Your task to perform on an android device: turn on javascript in the chrome app Image 0: 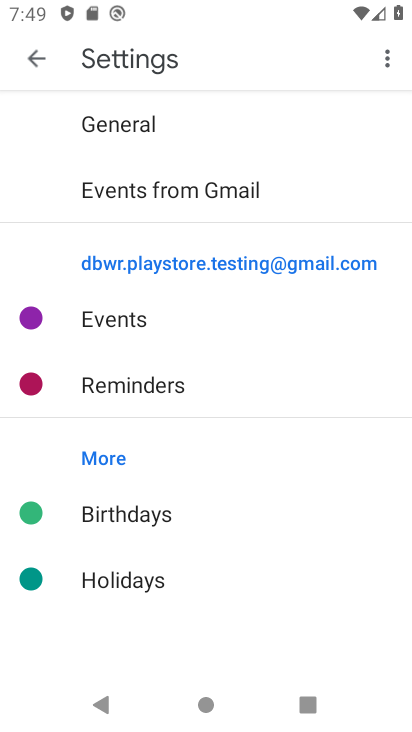
Step 0: press home button
Your task to perform on an android device: turn on javascript in the chrome app Image 1: 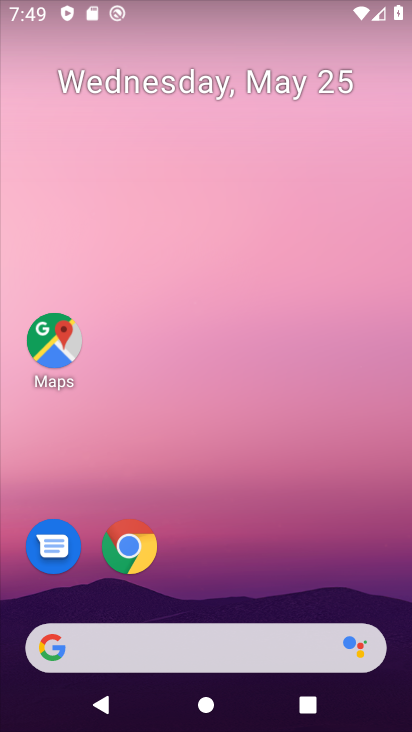
Step 1: click (128, 550)
Your task to perform on an android device: turn on javascript in the chrome app Image 2: 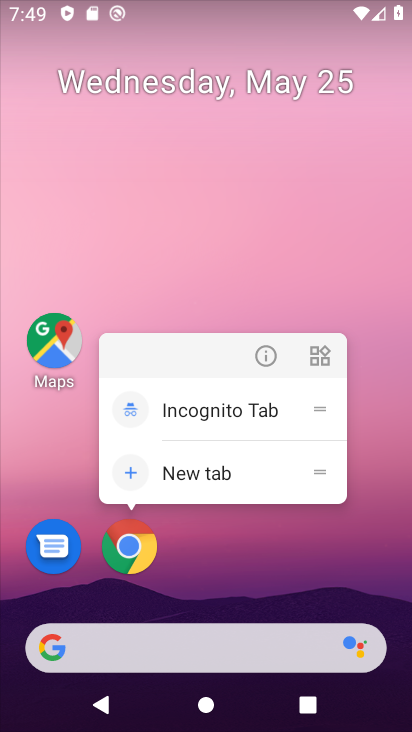
Step 2: click (132, 582)
Your task to perform on an android device: turn on javascript in the chrome app Image 3: 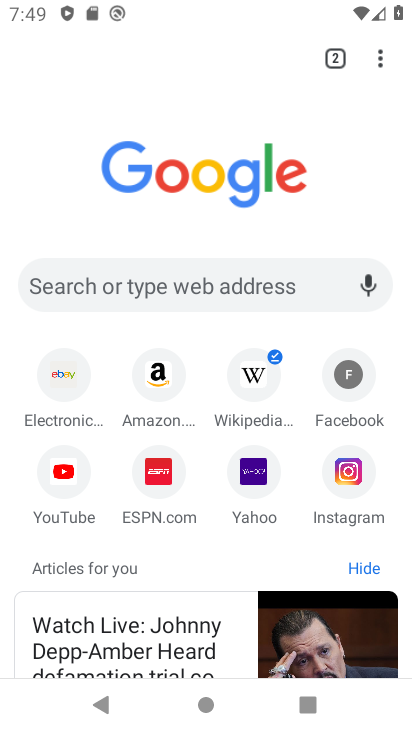
Step 3: click (380, 60)
Your task to perform on an android device: turn on javascript in the chrome app Image 4: 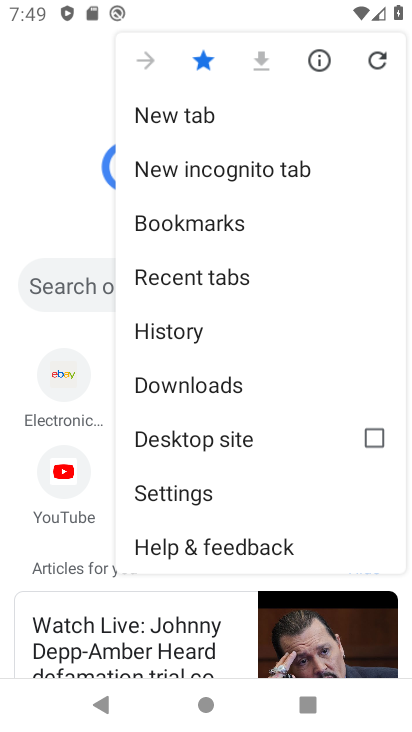
Step 4: click (181, 485)
Your task to perform on an android device: turn on javascript in the chrome app Image 5: 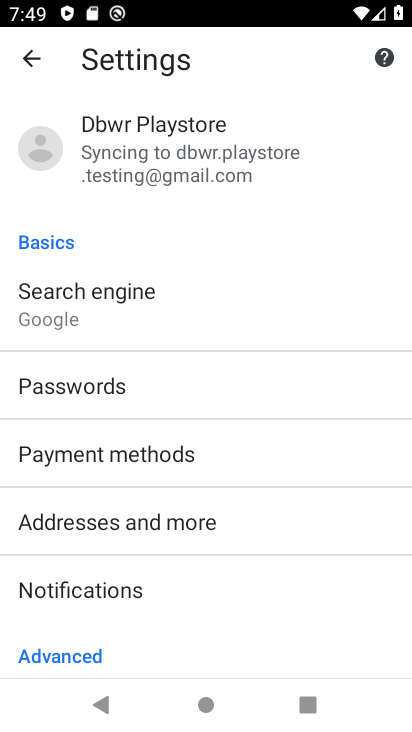
Step 5: drag from (131, 616) to (195, 38)
Your task to perform on an android device: turn on javascript in the chrome app Image 6: 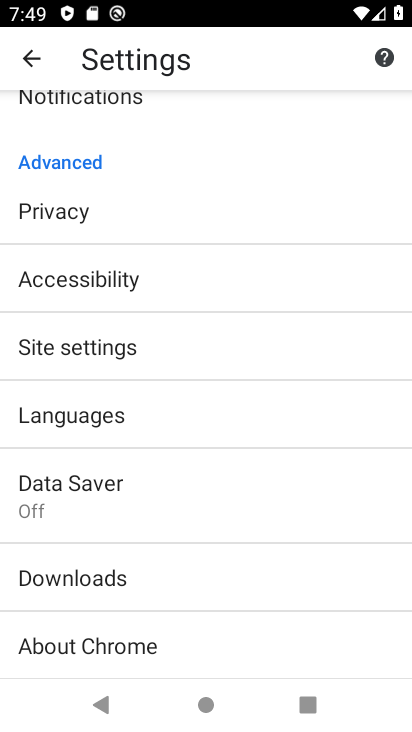
Step 6: click (46, 358)
Your task to perform on an android device: turn on javascript in the chrome app Image 7: 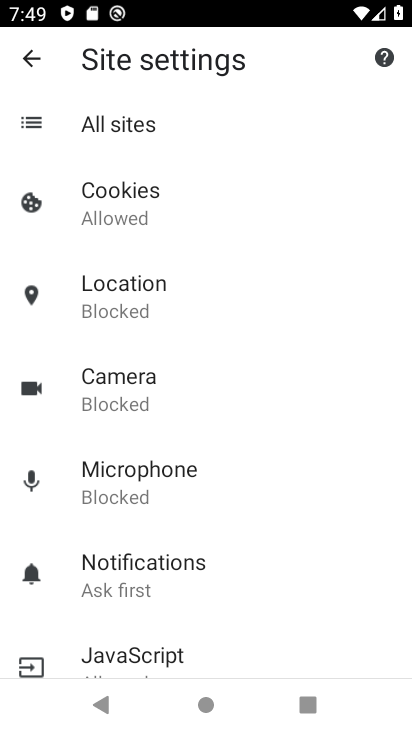
Step 7: click (134, 657)
Your task to perform on an android device: turn on javascript in the chrome app Image 8: 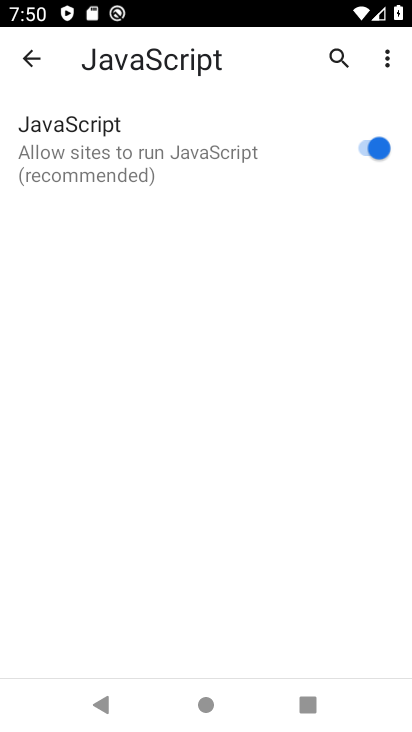
Step 8: task complete